Your task to perform on an android device: Add "logitech g910" to the cart on costco, then select checkout. Image 0: 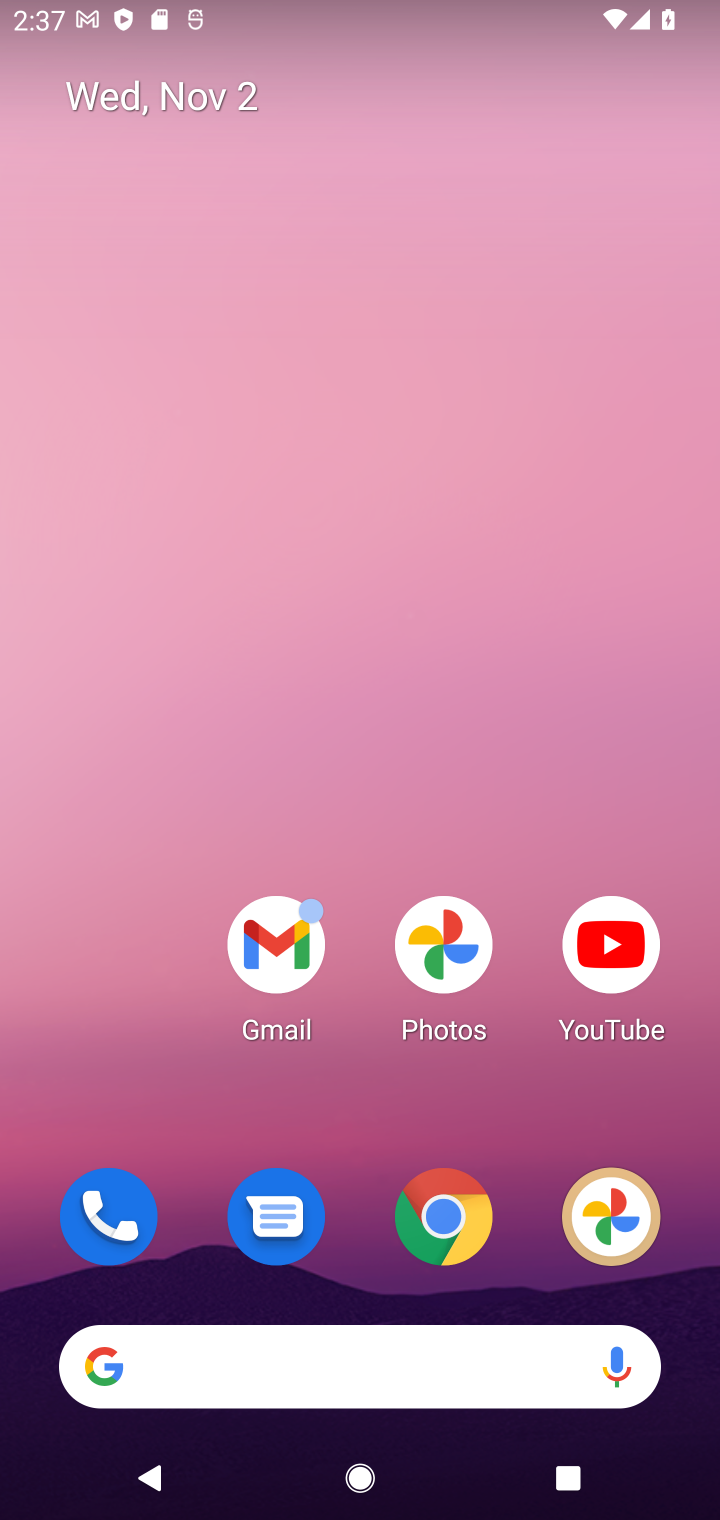
Step 0: click (438, 1226)
Your task to perform on an android device: Add "logitech g910" to the cart on costco, then select checkout. Image 1: 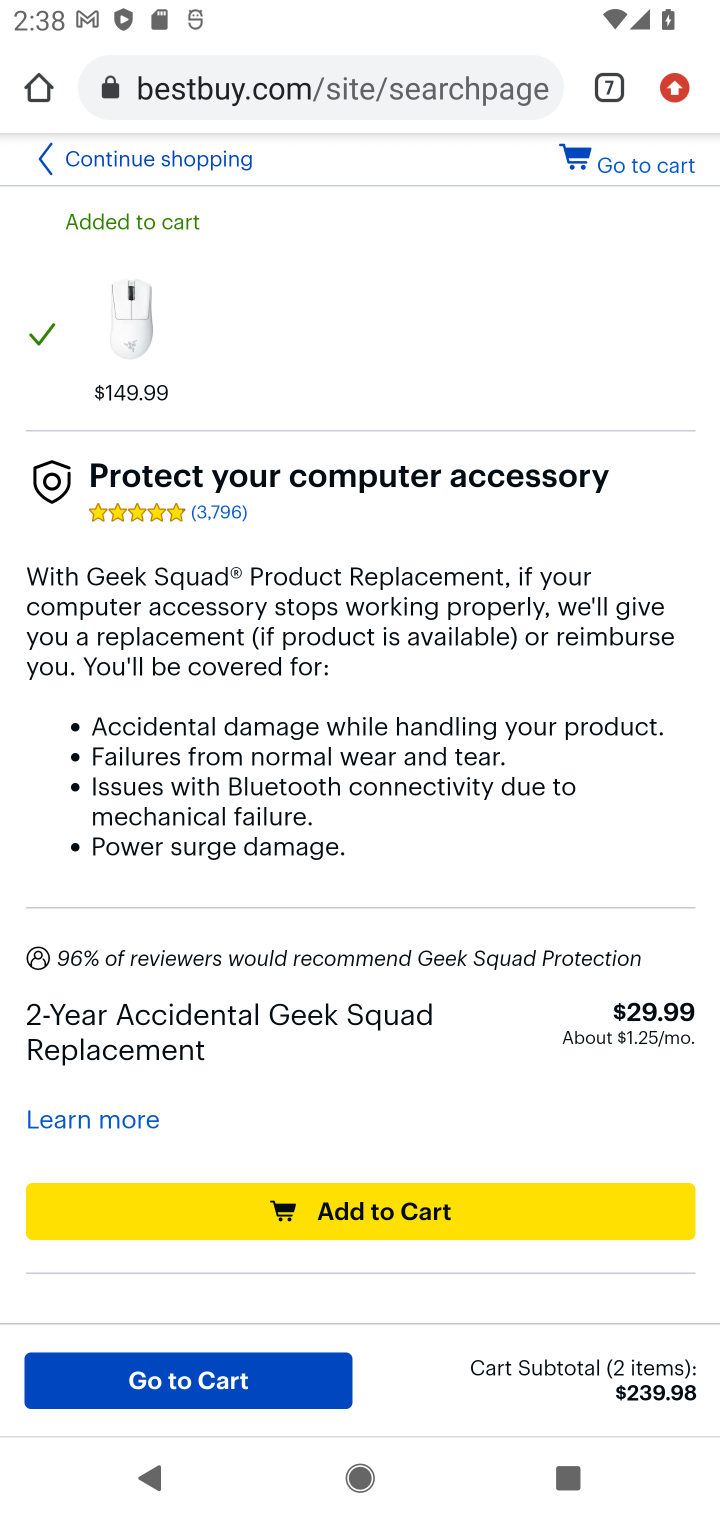
Step 1: click (613, 88)
Your task to perform on an android device: Add "logitech g910" to the cart on costco, then select checkout. Image 2: 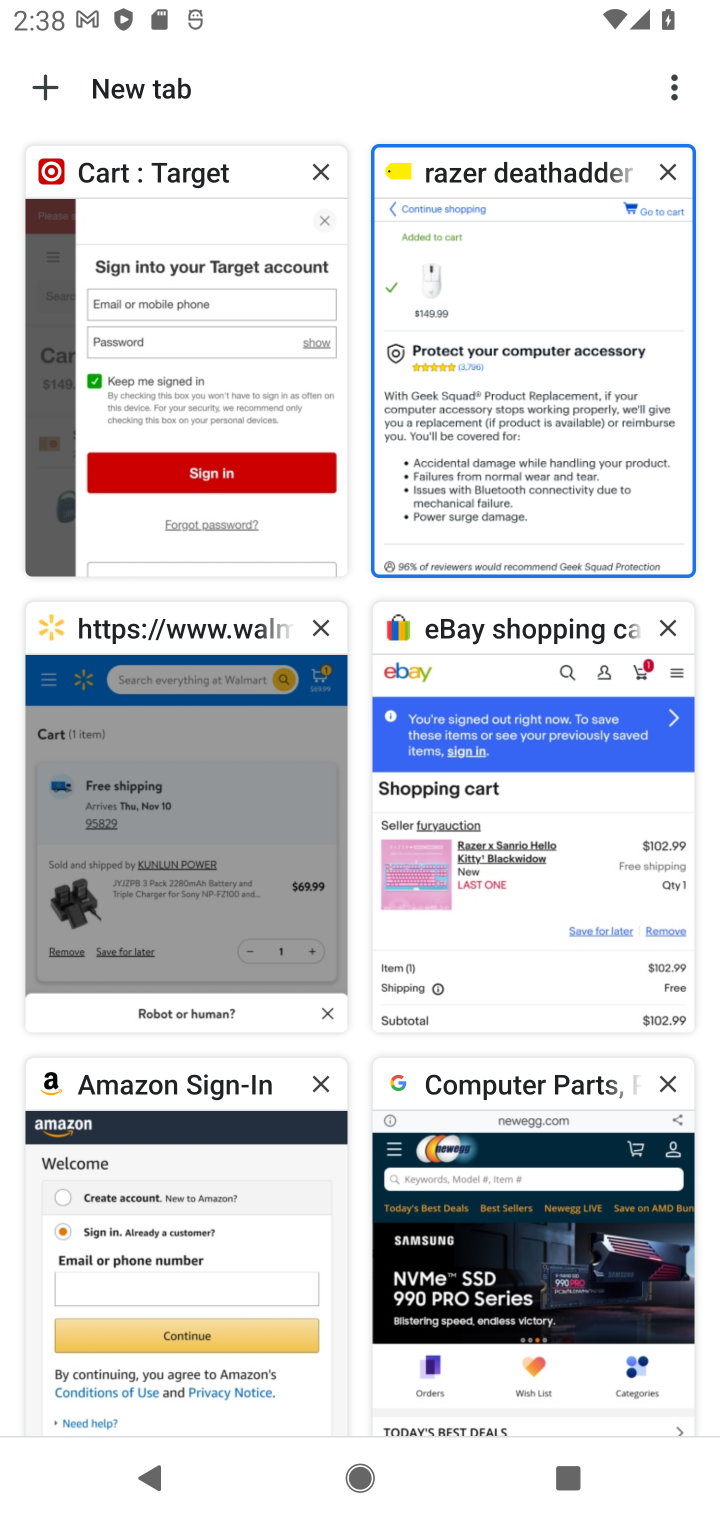
Step 2: drag from (265, 1196) to (475, 240)
Your task to perform on an android device: Add "logitech g910" to the cart on costco, then select checkout. Image 3: 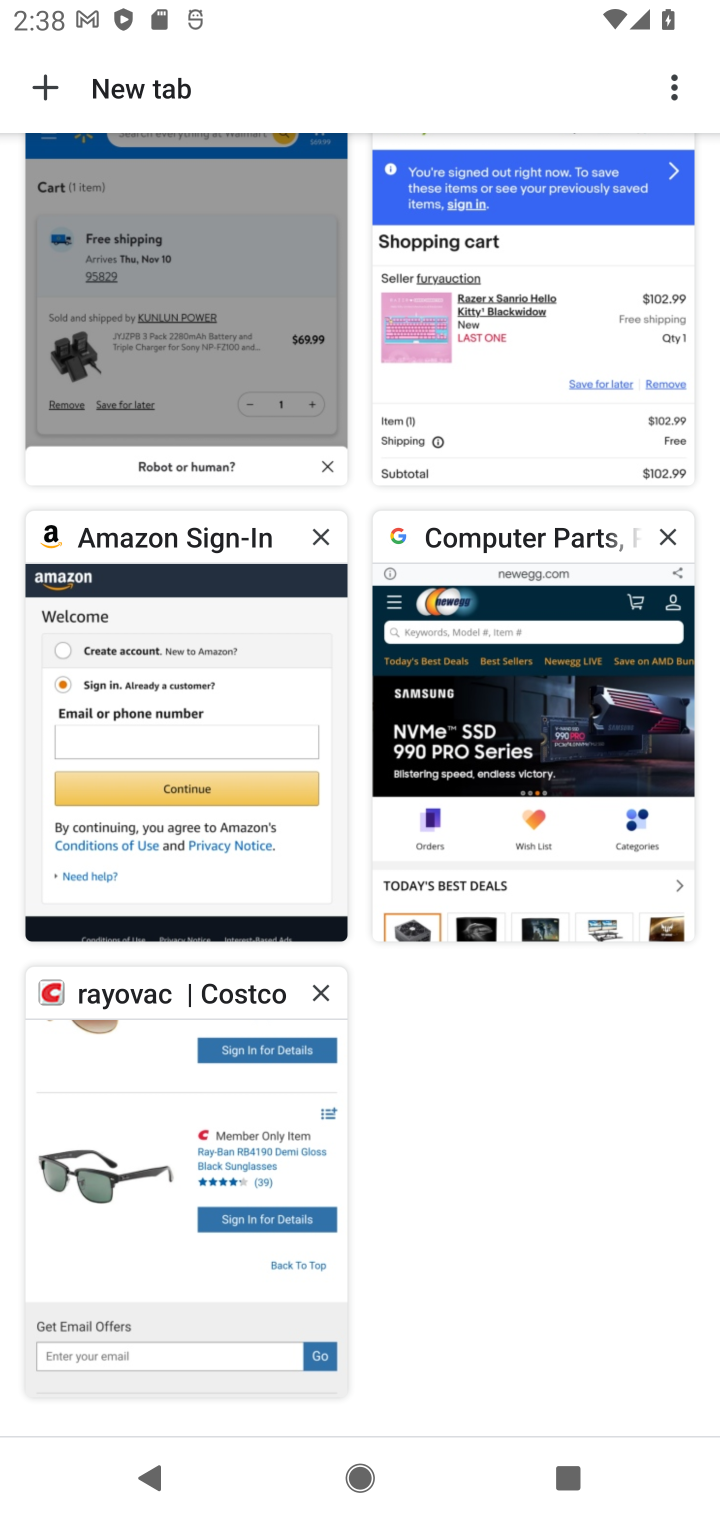
Step 3: click (249, 1073)
Your task to perform on an android device: Add "logitech g910" to the cart on costco, then select checkout. Image 4: 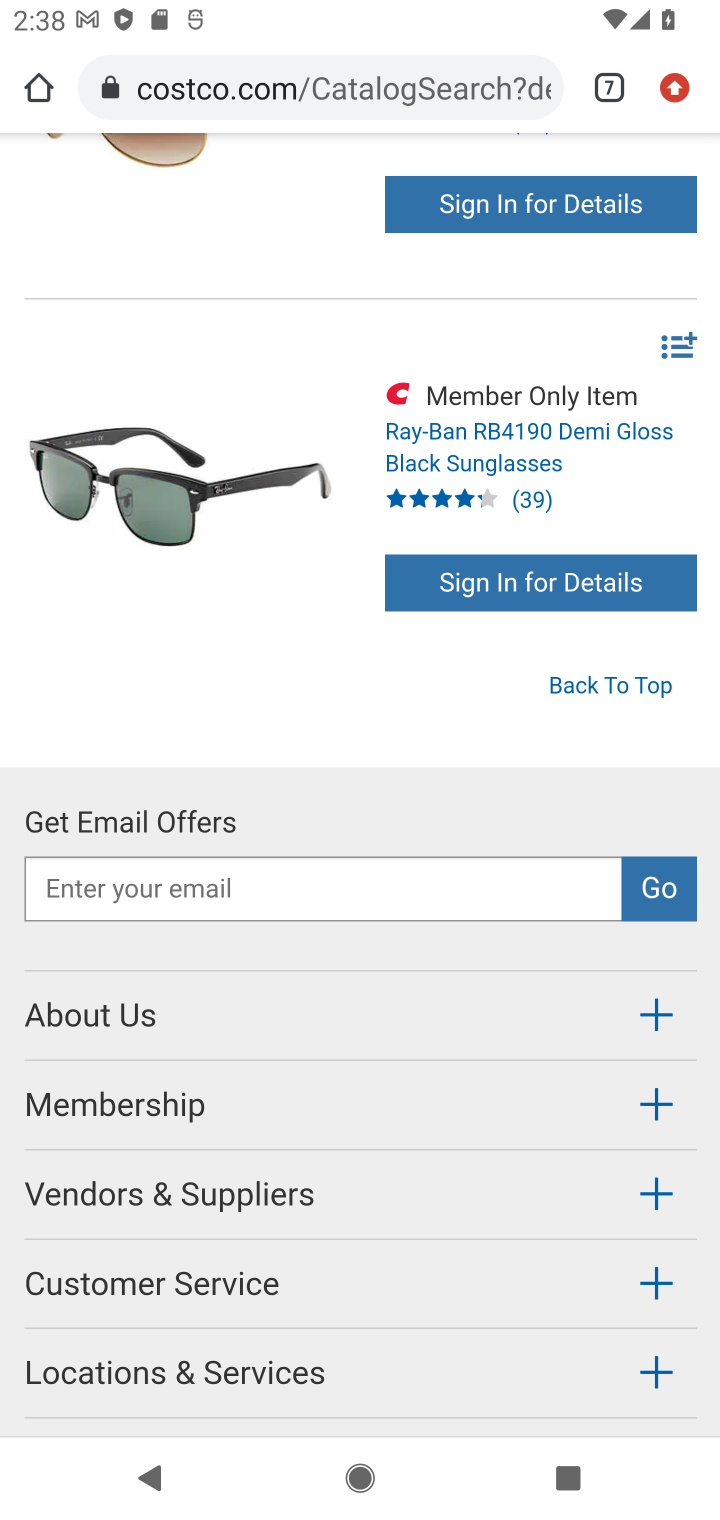
Step 4: drag from (331, 260) to (82, 1391)
Your task to perform on an android device: Add "logitech g910" to the cart on costco, then select checkout. Image 5: 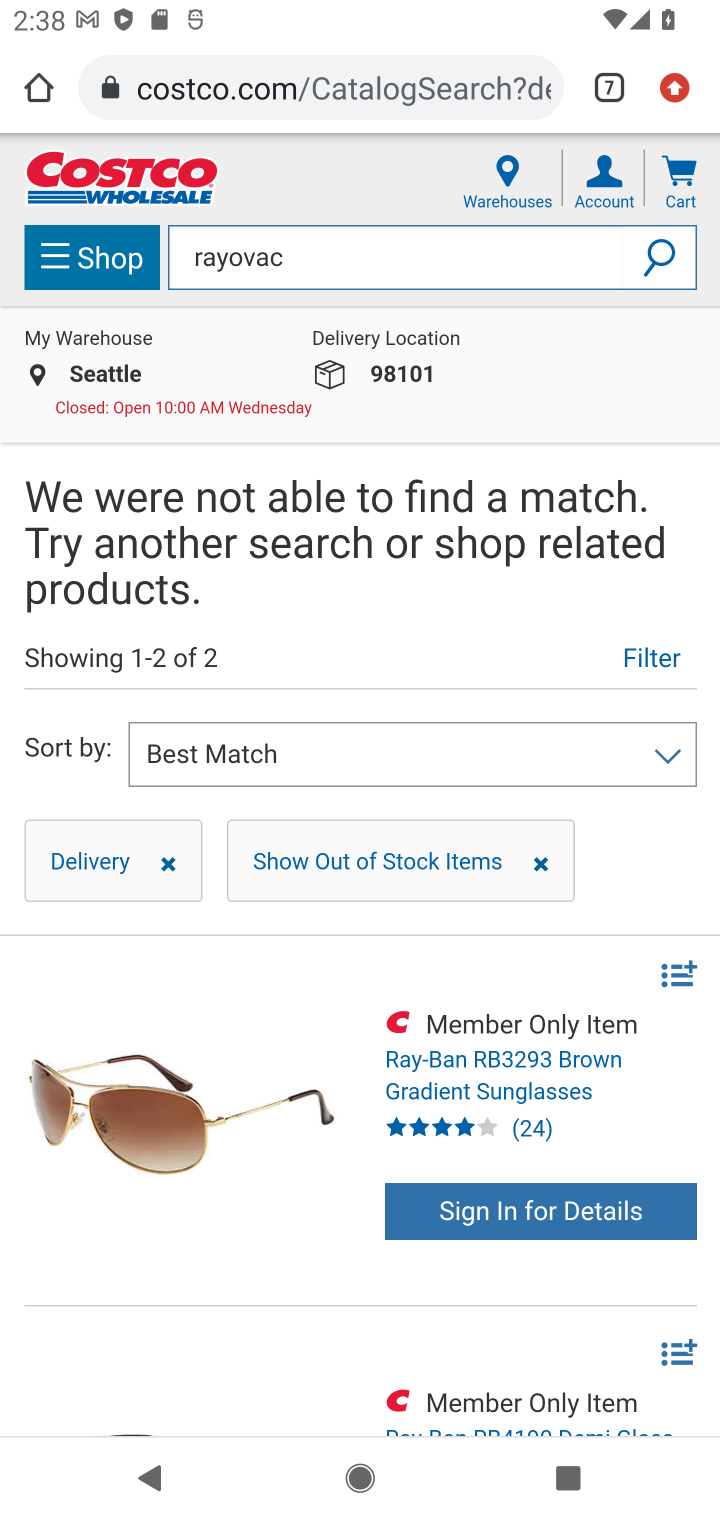
Step 5: click (402, 280)
Your task to perform on an android device: Add "logitech g910" to the cart on costco, then select checkout. Image 6: 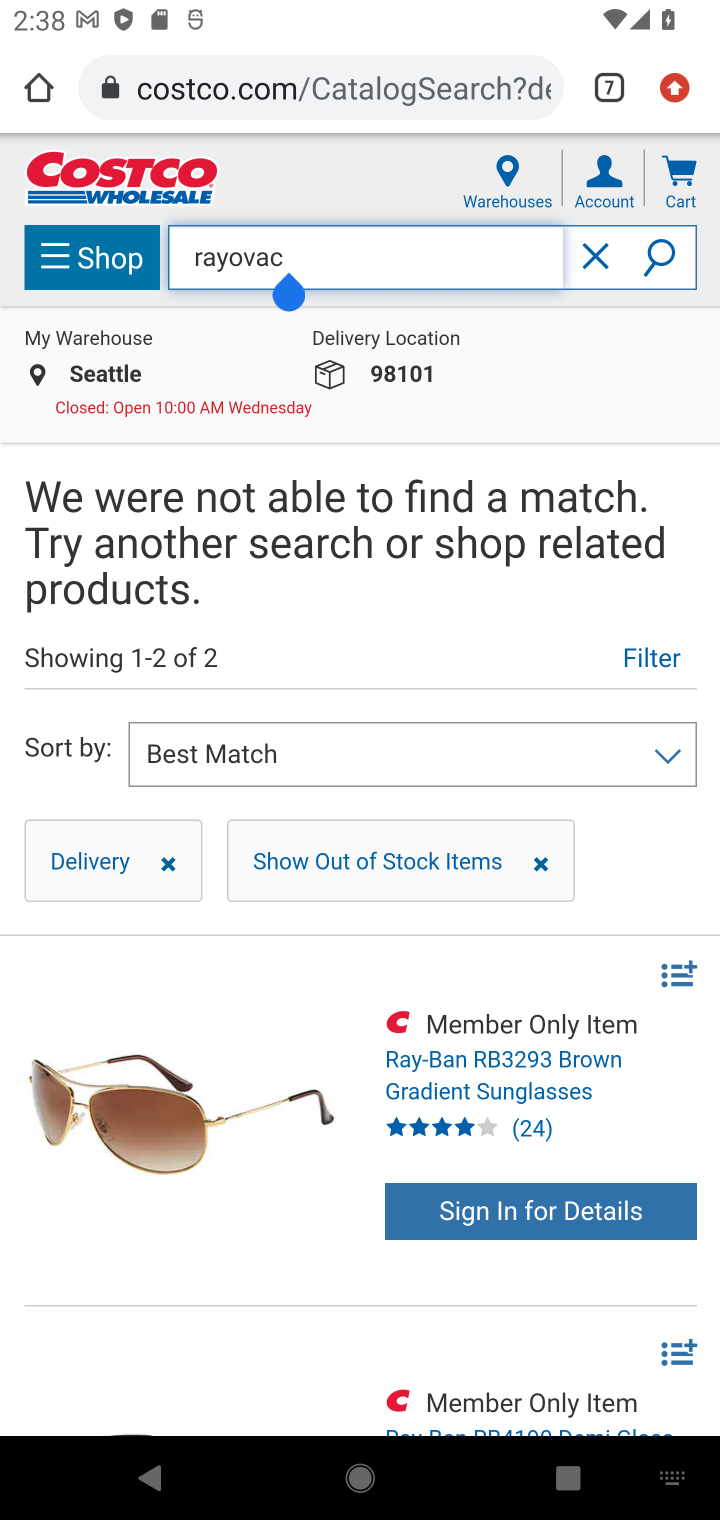
Step 6: click (409, 267)
Your task to perform on an android device: Add "logitech g910" to the cart on costco, then select checkout. Image 7: 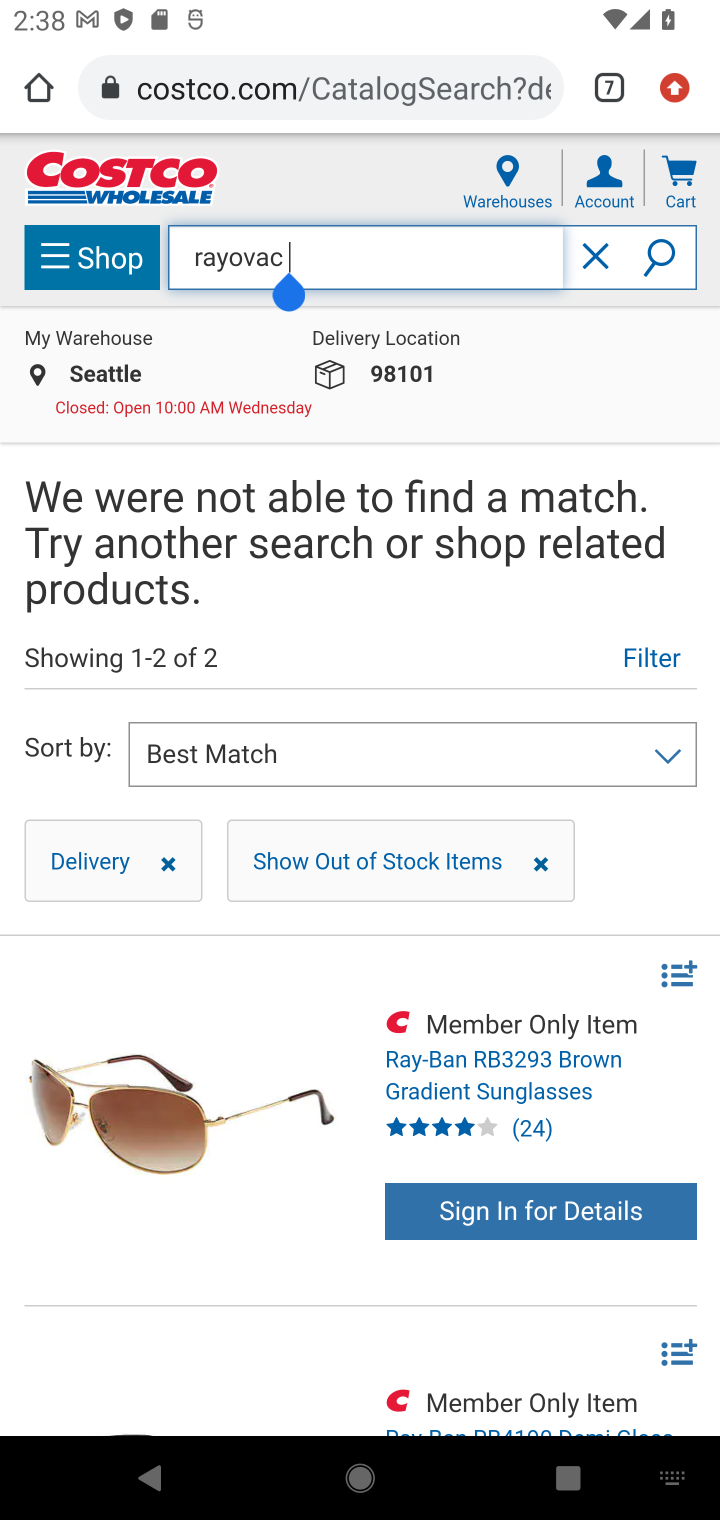
Step 7: click (591, 254)
Your task to perform on an android device: Add "logitech g910" to the cart on costco, then select checkout. Image 8: 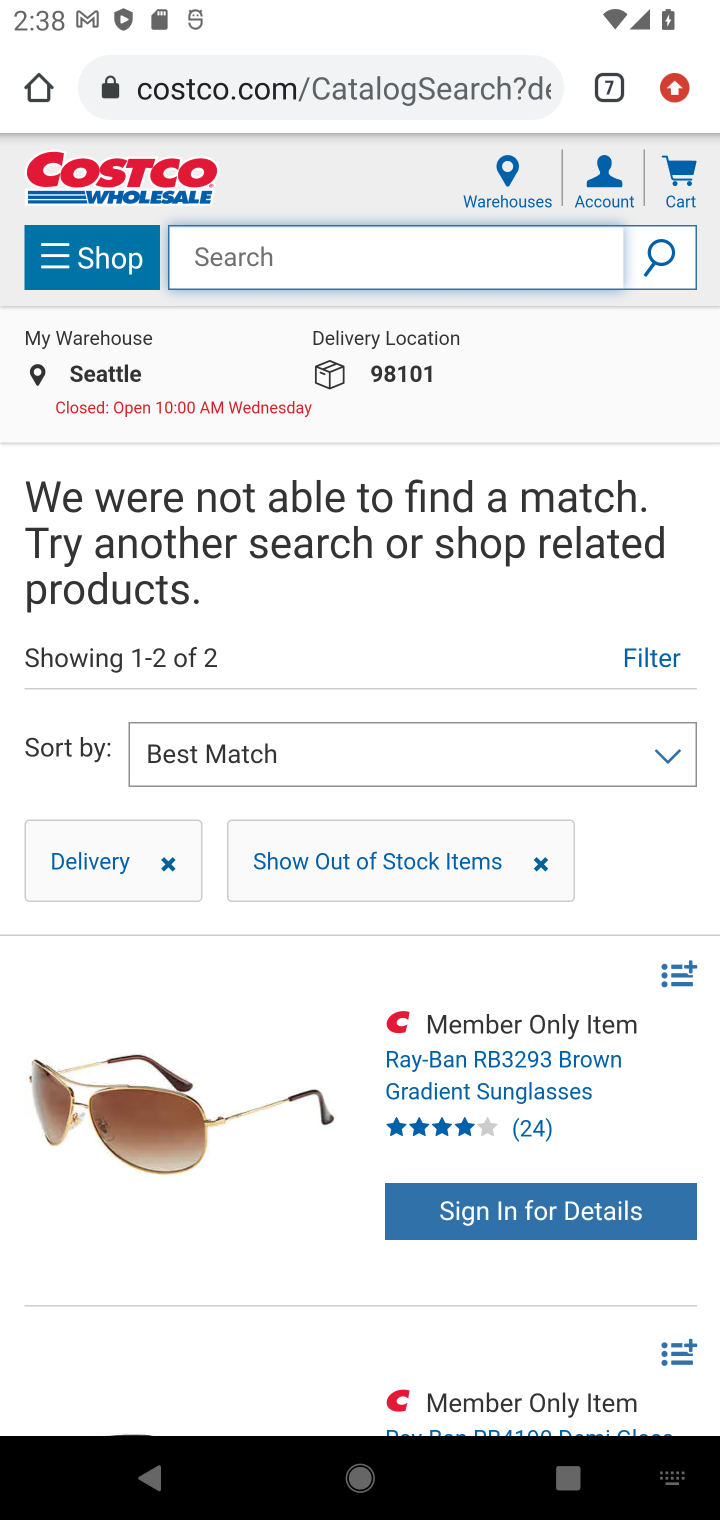
Step 8: type "logitech g910"
Your task to perform on an android device: Add "logitech g910" to the cart on costco, then select checkout. Image 9: 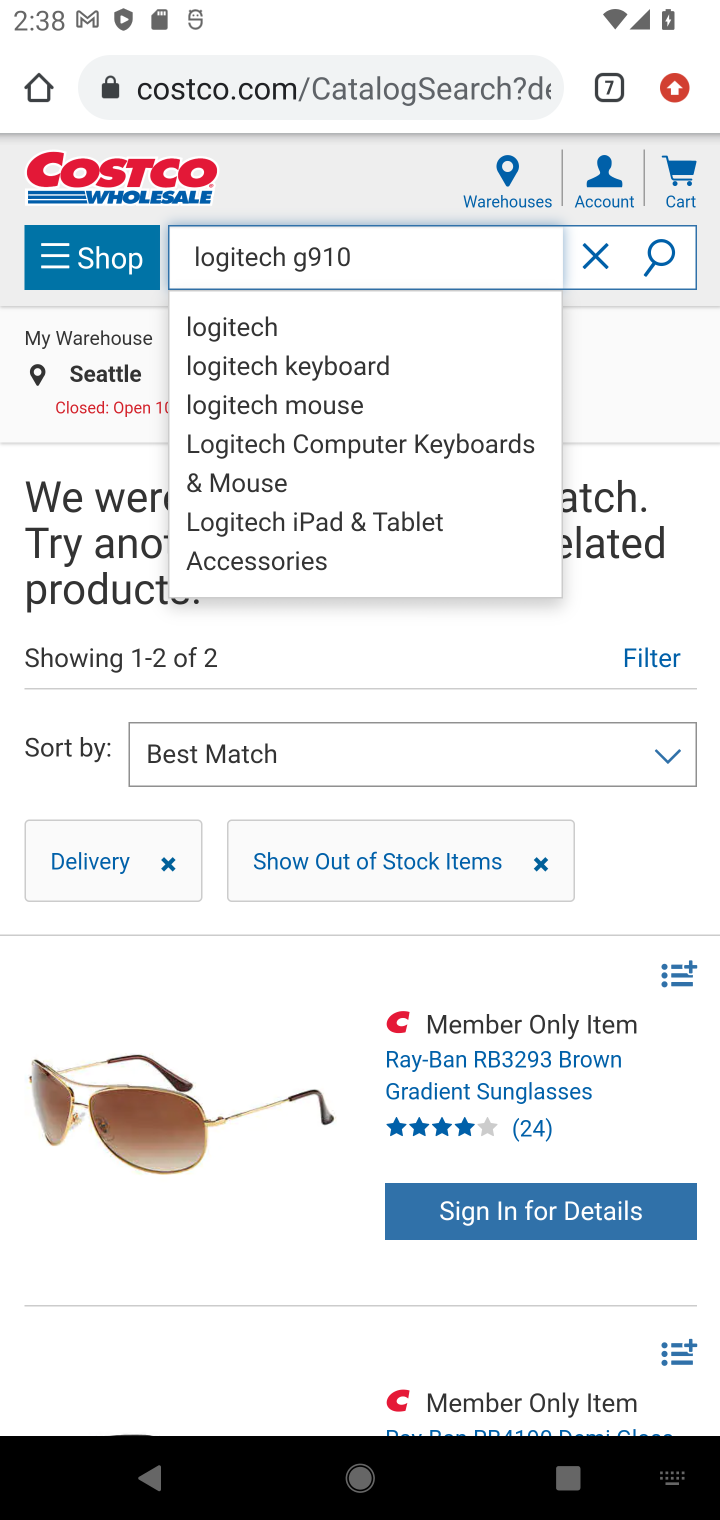
Step 9: click (286, 359)
Your task to perform on an android device: Add "logitech g910" to the cart on costco, then select checkout. Image 10: 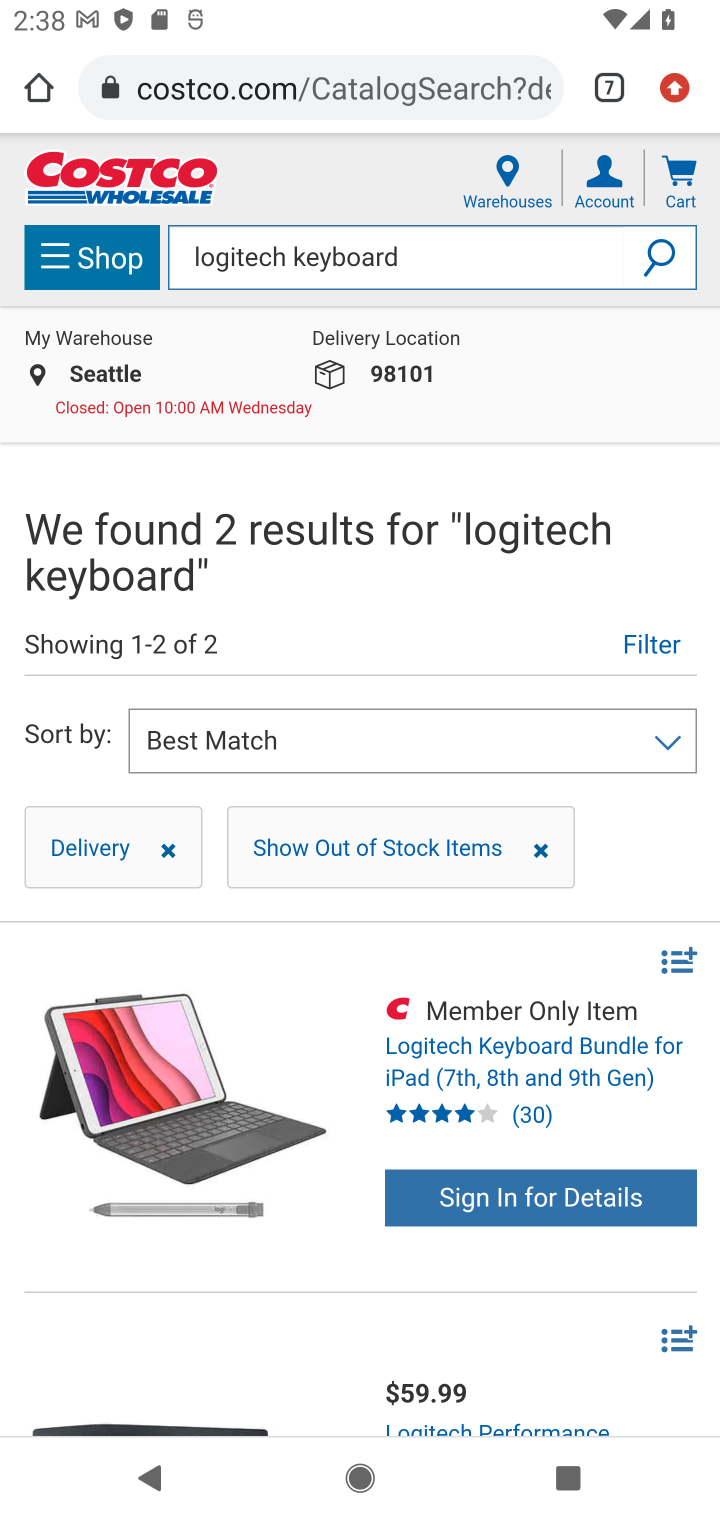
Step 10: drag from (316, 1345) to (420, 693)
Your task to perform on an android device: Add "logitech g910" to the cart on costco, then select checkout. Image 11: 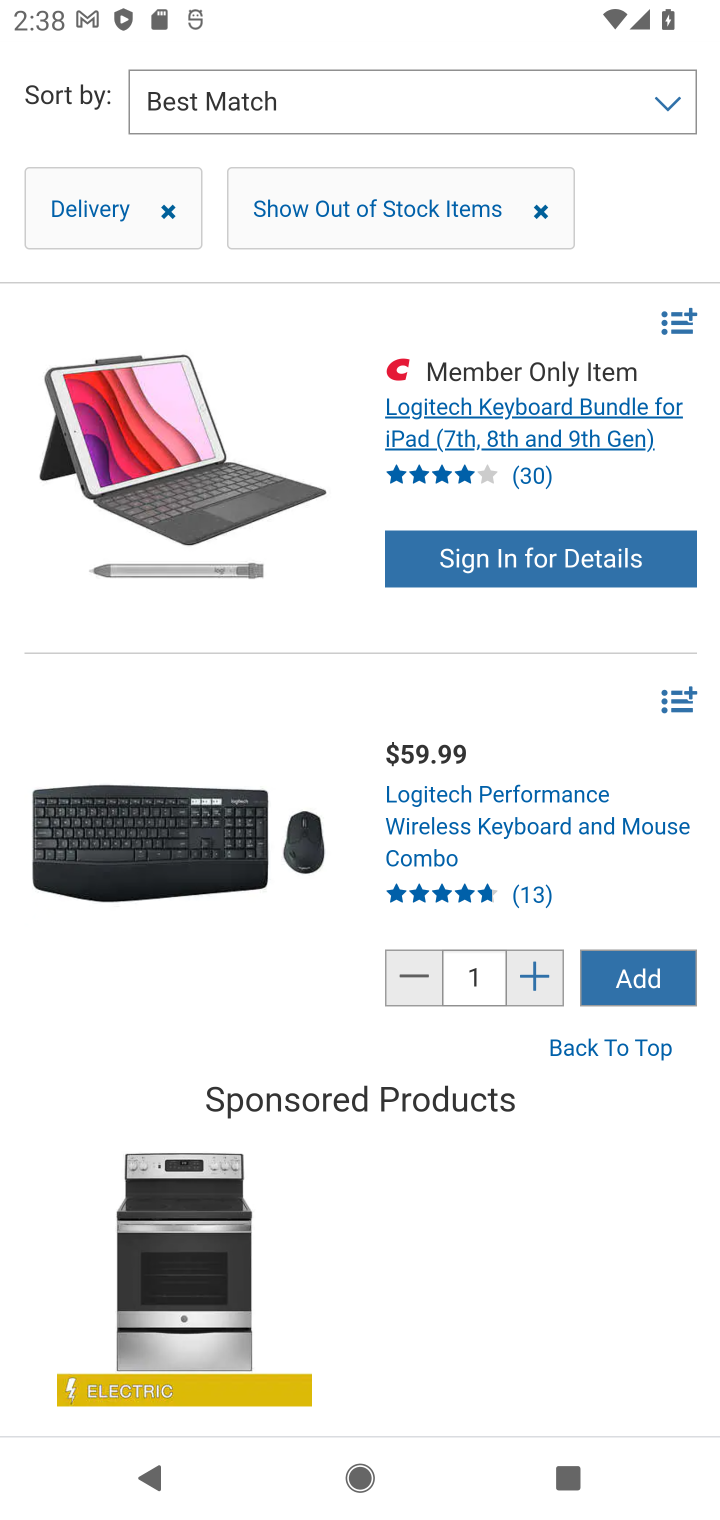
Step 11: click (650, 979)
Your task to perform on an android device: Add "logitech g910" to the cart on costco, then select checkout. Image 12: 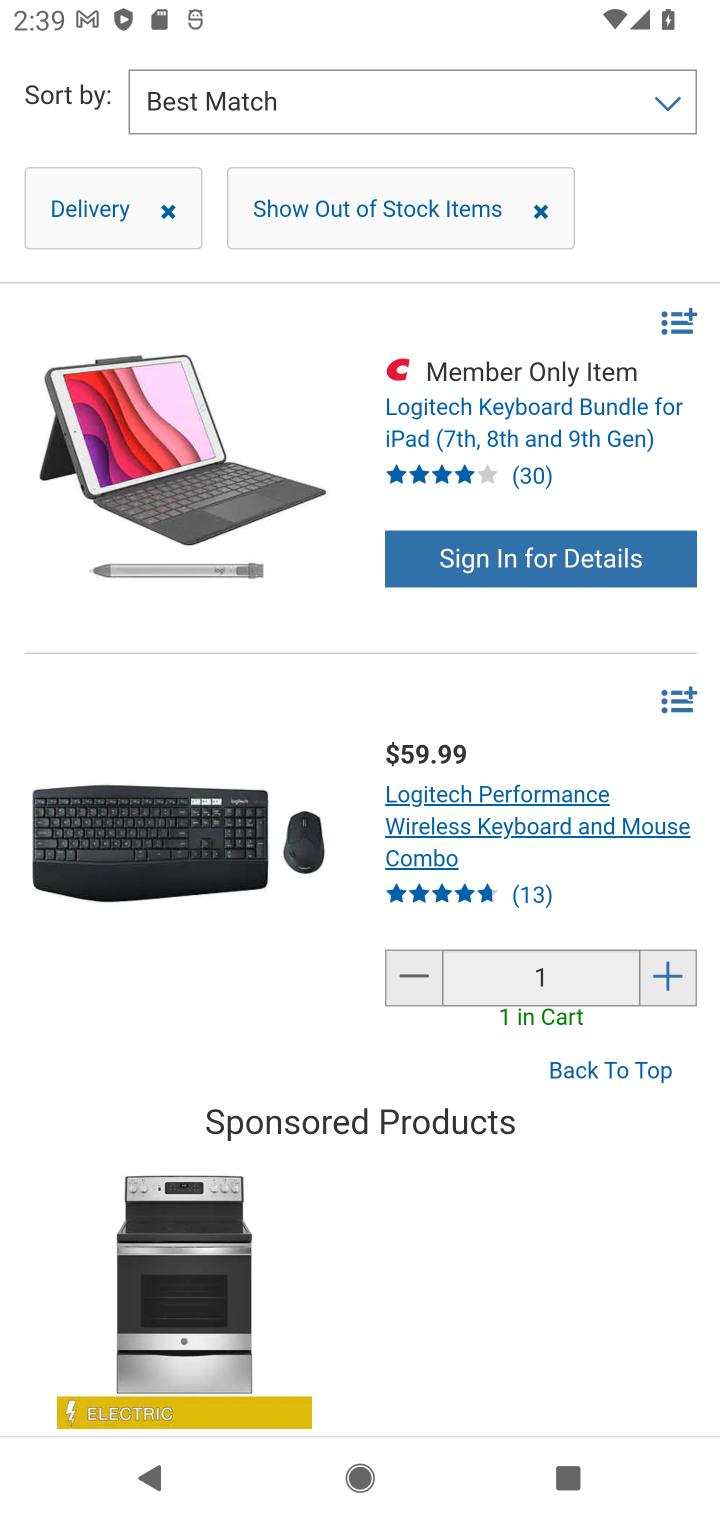
Step 12: task complete